Your task to perform on an android device: Open settings on Google Maps Image 0: 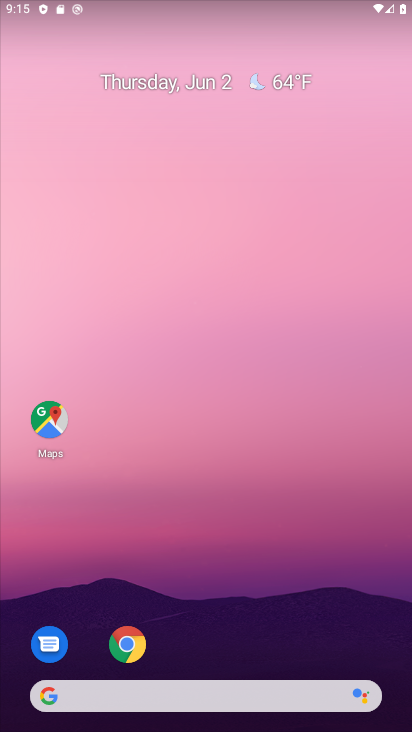
Step 0: press home button
Your task to perform on an android device: Open settings on Google Maps Image 1: 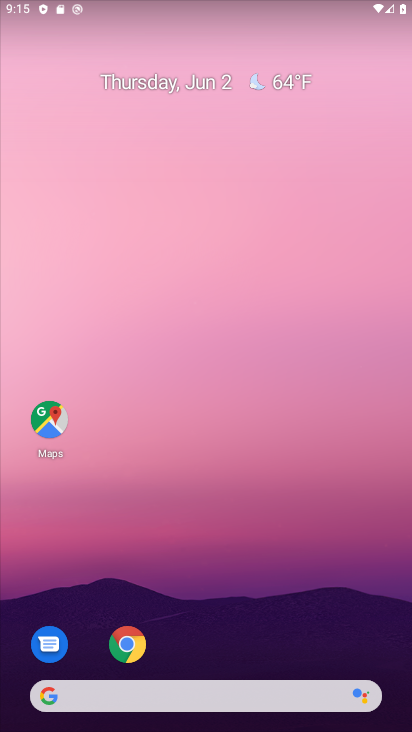
Step 1: click (40, 408)
Your task to perform on an android device: Open settings on Google Maps Image 2: 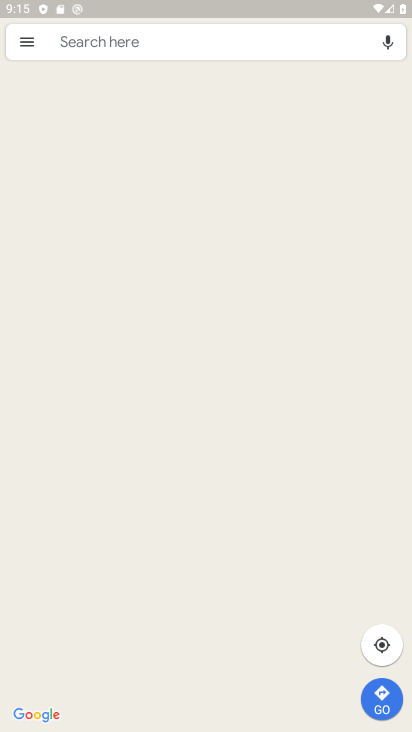
Step 2: click (25, 43)
Your task to perform on an android device: Open settings on Google Maps Image 3: 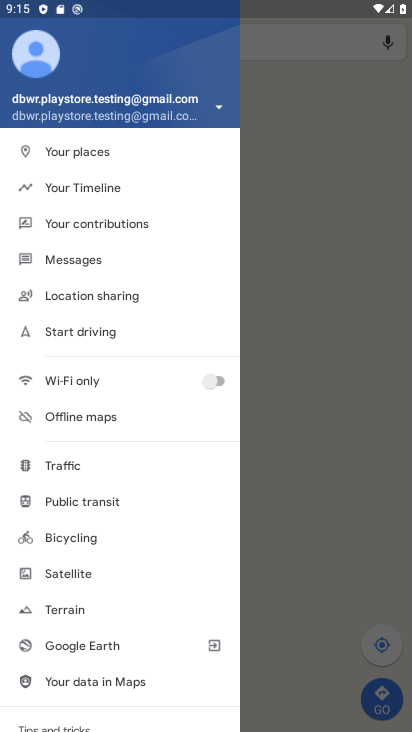
Step 3: drag from (101, 386) to (121, 206)
Your task to perform on an android device: Open settings on Google Maps Image 4: 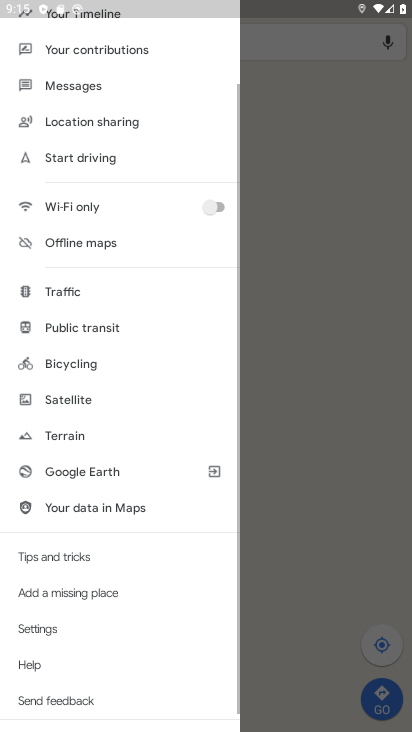
Step 4: drag from (101, 647) to (114, 399)
Your task to perform on an android device: Open settings on Google Maps Image 5: 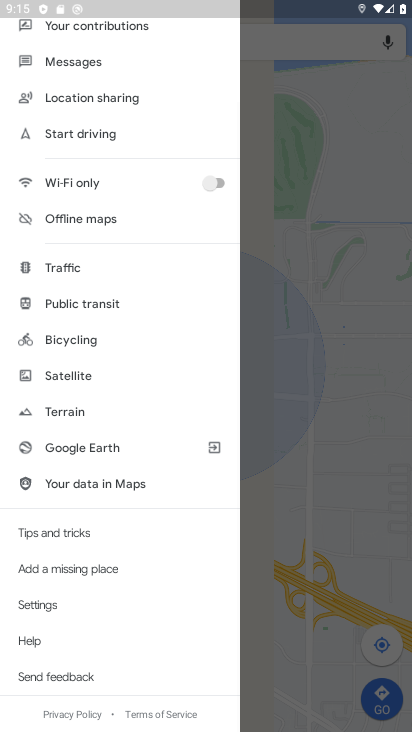
Step 5: click (33, 603)
Your task to perform on an android device: Open settings on Google Maps Image 6: 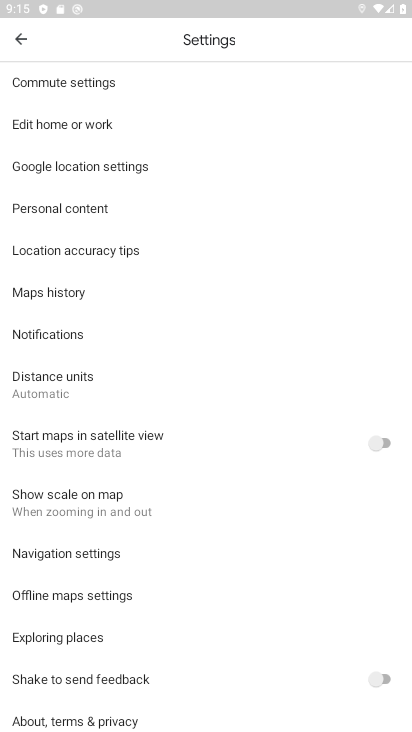
Step 6: task complete